Your task to perform on an android device: set an alarm Image 0: 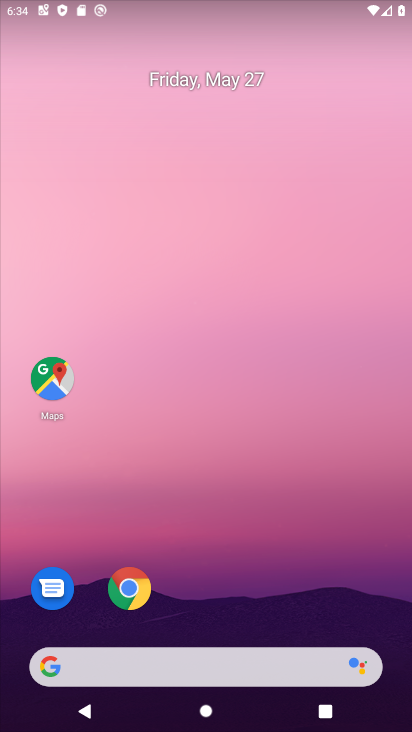
Step 0: drag from (380, 564) to (297, 162)
Your task to perform on an android device: set an alarm Image 1: 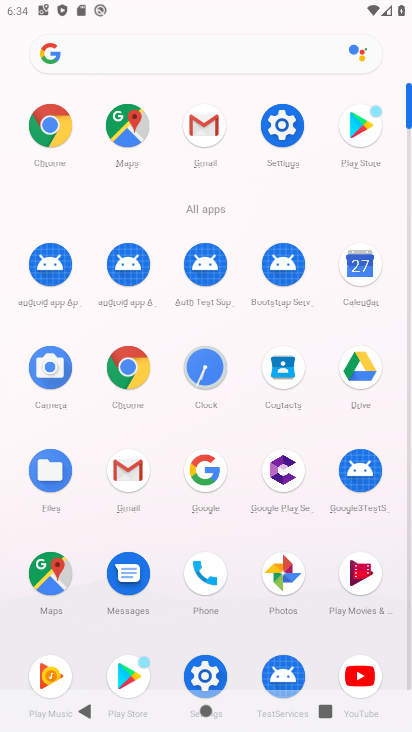
Step 1: click (203, 365)
Your task to perform on an android device: set an alarm Image 2: 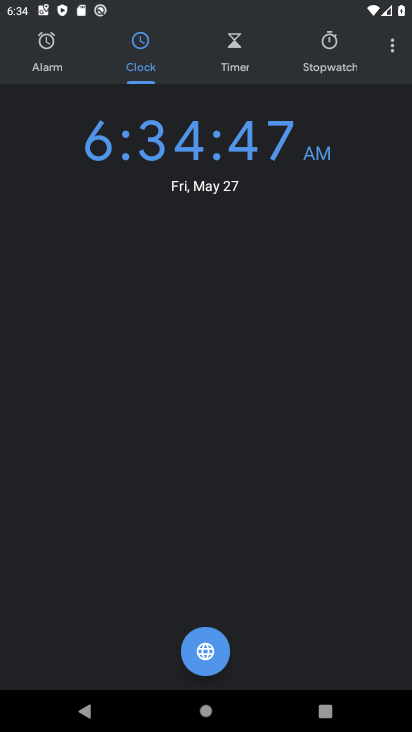
Step 2: click (44, 37)
Your task to perform on an android device: set an alarm Image 3: 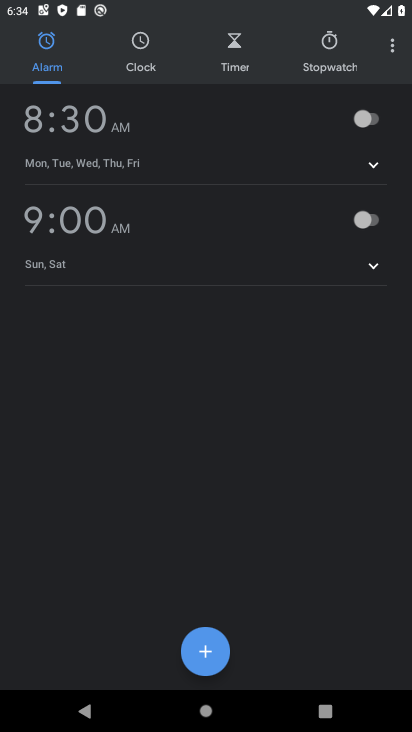
Step 3: click (212, 653)
Your task to perform on an android device: set an alarm Image 4: 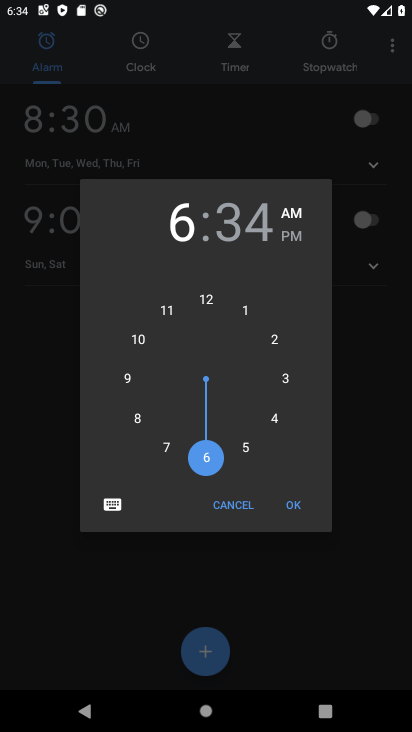
Step 4: click (302, 505)
Your task to perform on an android device: set an alarm Image 5: 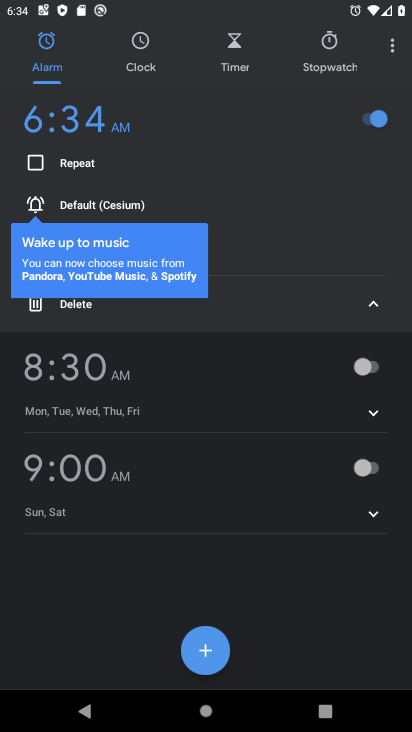
Step 5: task complete